Your task to perform on an android device: Show me popular games on the Play Store Image 0: 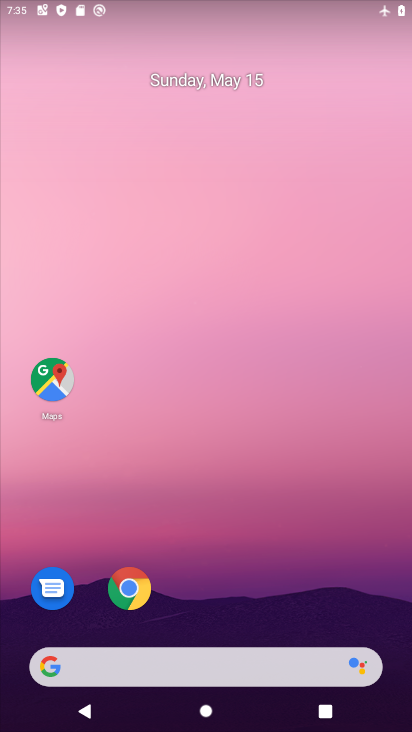
Step 0: drag from (332, 614) to (281, 48)
Your task to perform on an android device: Show me popular games on the Play Store Image 1: 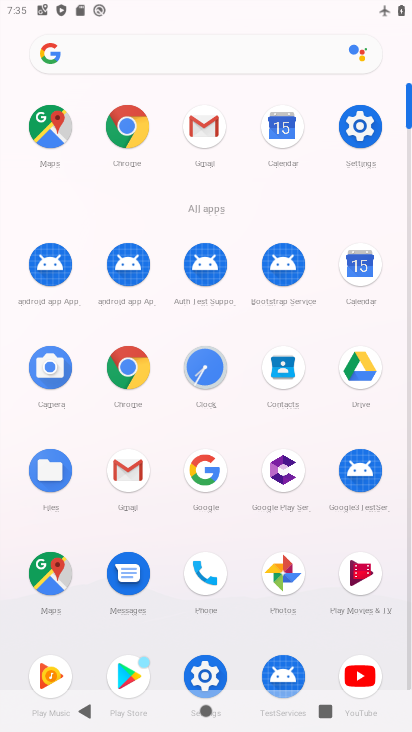
Step 1: drag from (166, 626) to (184, 195)
Your task to perform on an android device: Show me popular games on the Play Store Image 2: 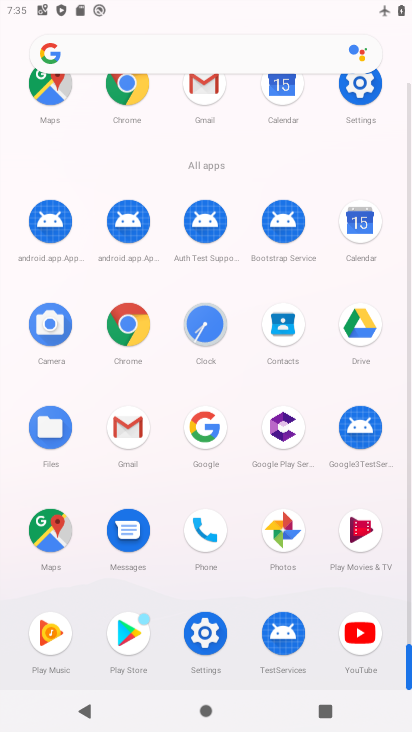
Step 2: drag from (180, 650) to (196, 285)
Your task to perform on an android device: Show me popular games on the Play Store Image 3: 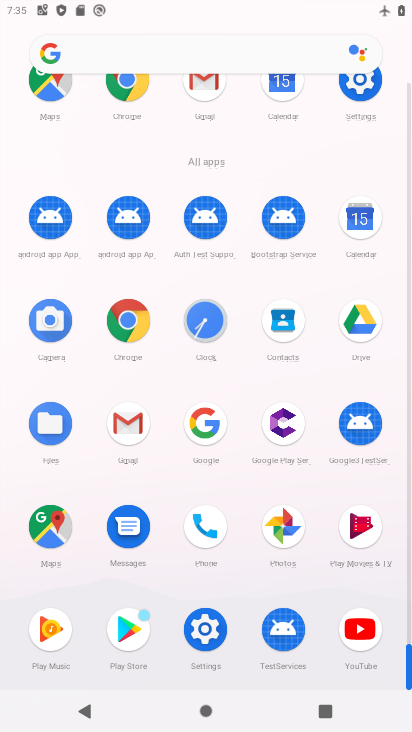
Step 3: click (129, 616)
Your task to perform on an android device: Show me popular games on the Play Store Image 4: 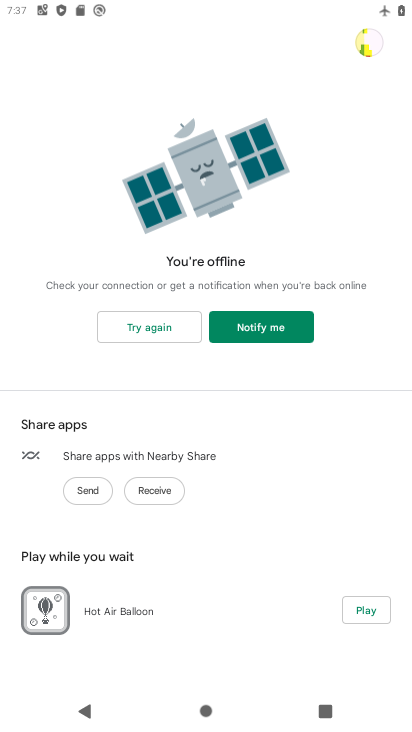
Step 4: task complete